Your task to perform on an android device: change text size in settings app Image 0: 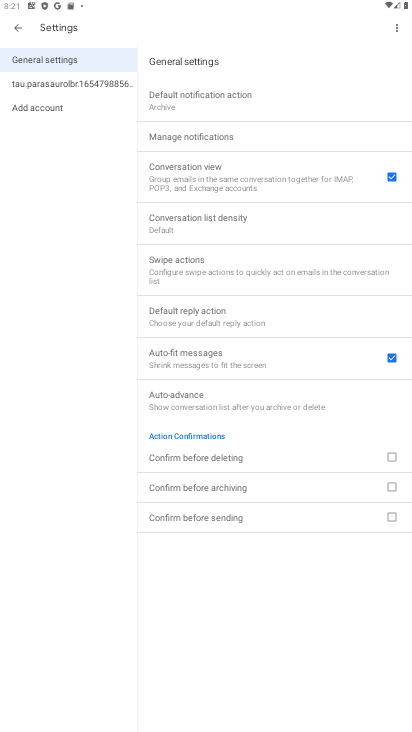
Step 0: press home button
Your task to perform on an android device: change text size in settings app Image 1: 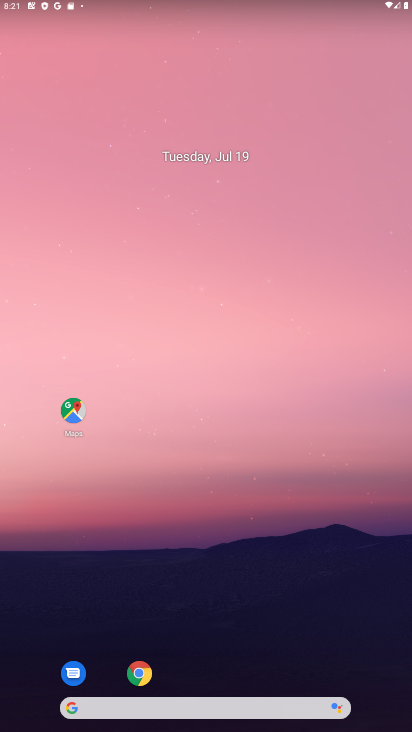
Step 1: drag from (196, 681) to (189, 141)
Your task to perform on an android device: change text size in settings app Image 2: 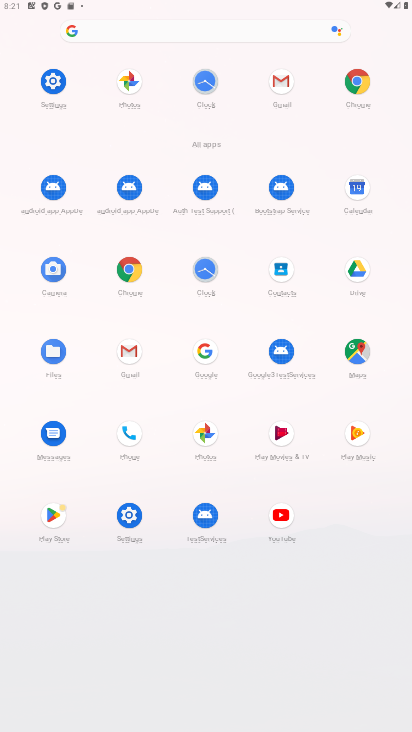
Step 2: click (57, 93)
Your task to perform on an android device: change text size in settings app Image 3: 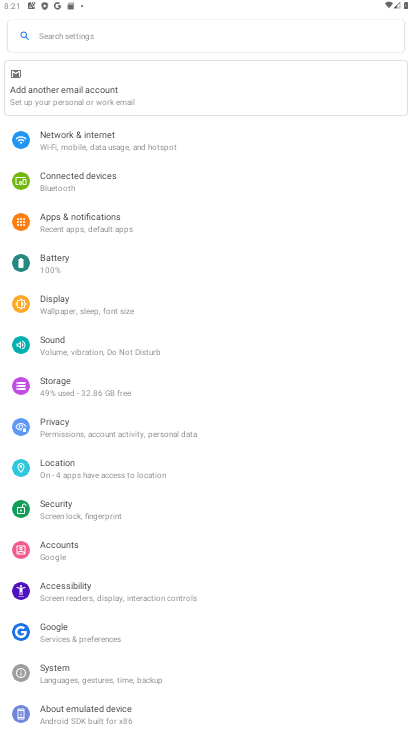
Step 3: click (122, 306)
Your task to perform on an android device: change text size in settings app Image 4: 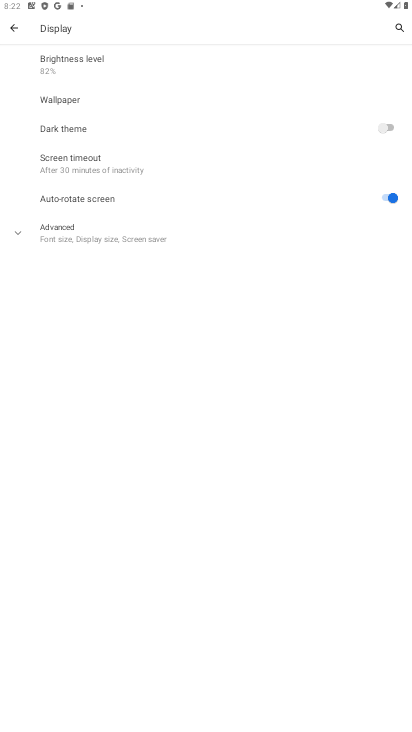
Step 4: click (102, 225)
Your task to perform on an android device: change text size in settings app Image 5: 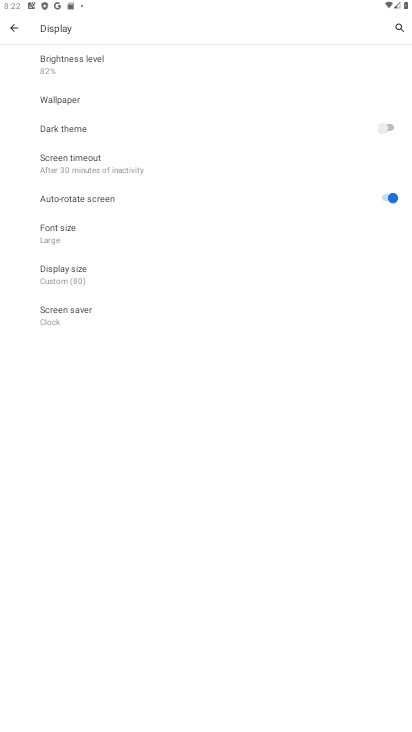
Step 5: click (100, 227)
Your task to perform on an android device: change text size in settings app Image 6: 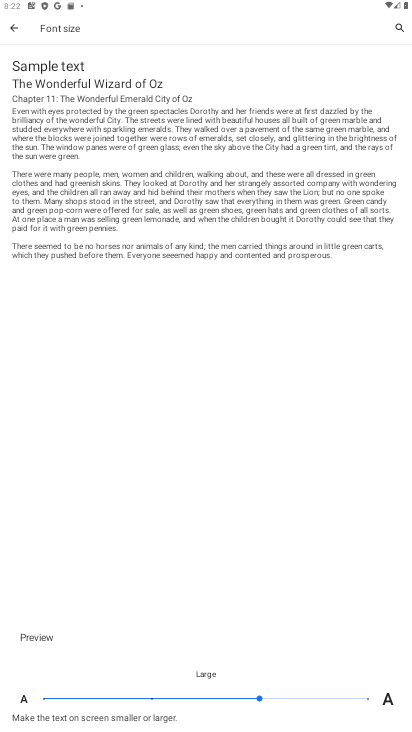
Step 6: click (368, 697)
Your task to perform on an android device: change text size in settings app Image 7: 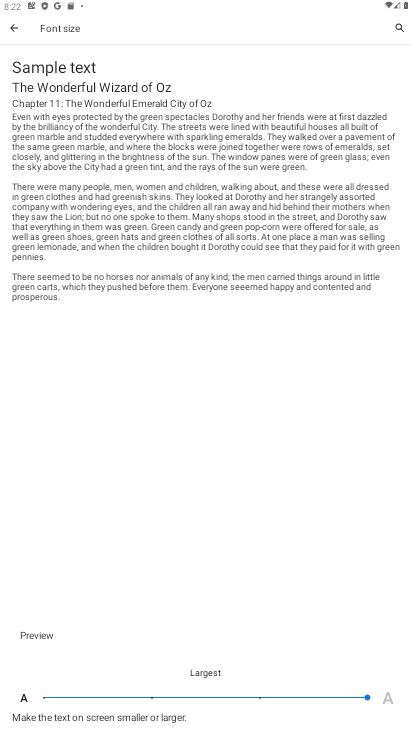
Step 7: task complete